Your task to perform on an android device: find snoozed emails in the gmail app Image 0: 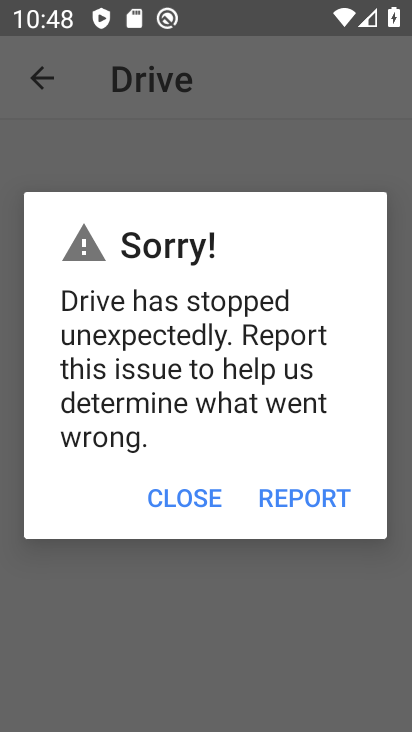
Step 0: press home button
Your task to perform on an android device: find snoozed emails in the gmail app Image 1: 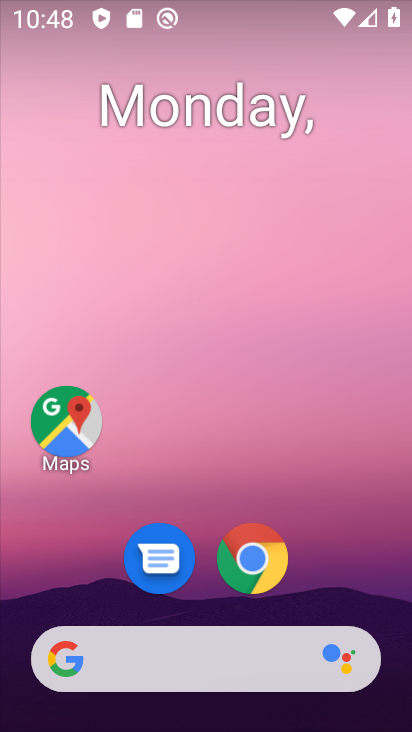
Step 1: drag from (314, 538) to (345, 82)
Your task to perform on an android device: find snoozed emails in the gmail app Image 2: 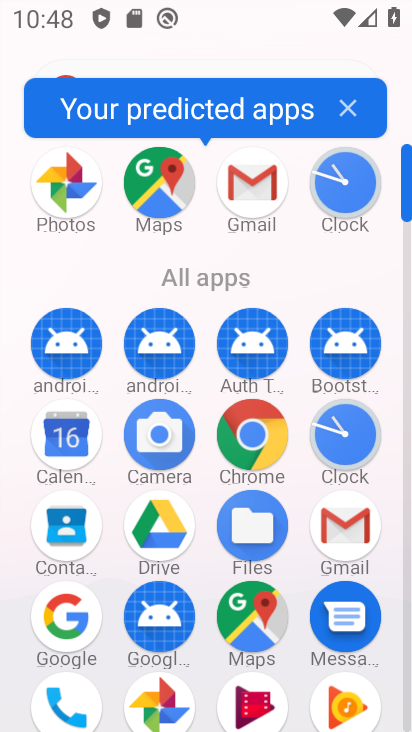
Step 2: click (257, 186)
Your task to perform on an android device: find snoozed emails in the gmail app Image 3: 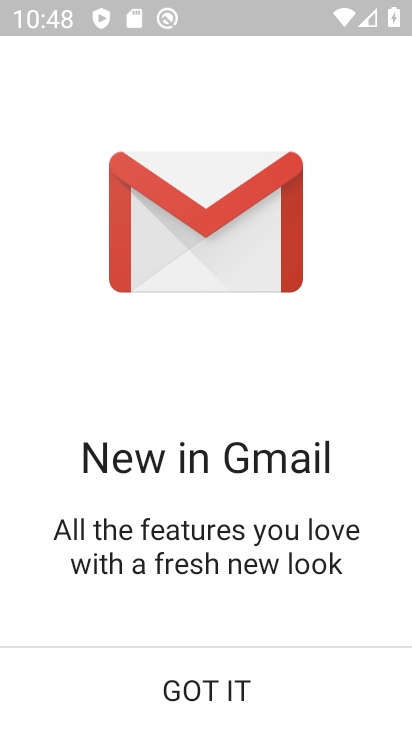
Step 3: click (234, 684)
Your task to perform on an android device: find snoozed emails in the gmail app Image 4: 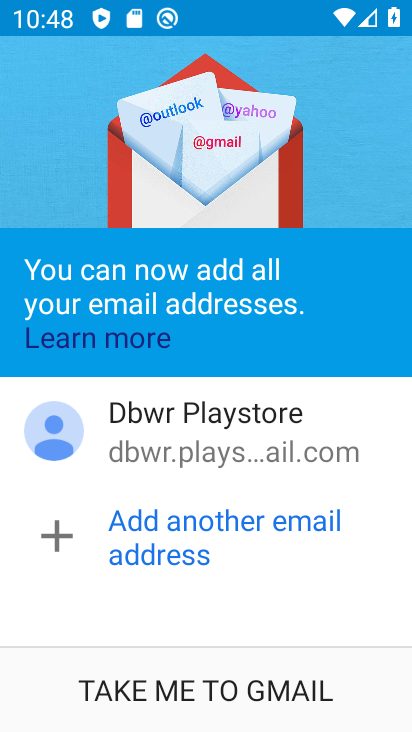
Step 4: click (233, 684)
Your task to perform on an android device: find snoozed emails in the gmail app Image 5: 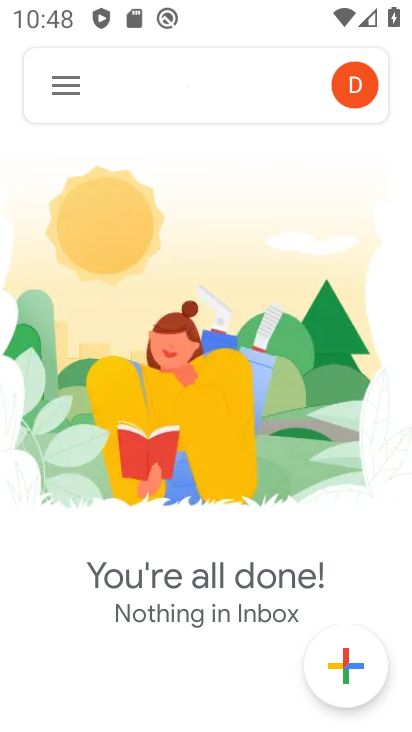
Step 5: click (70, 76)
Your task to perform on an android device: find snoozed emails in the gmail app Image 6: 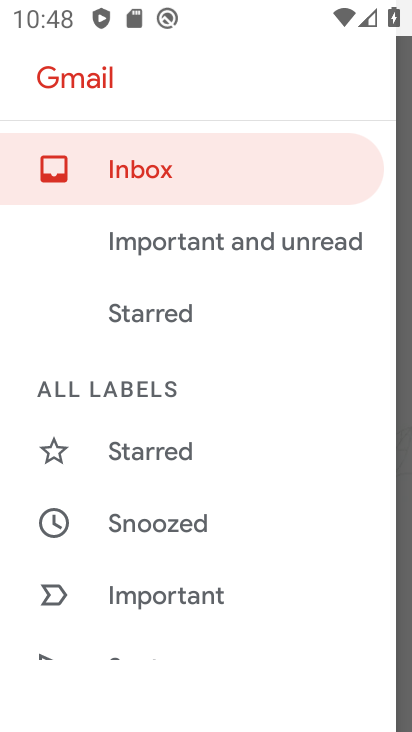
Step 6: click (191, 525)
Your task to perform on an android device: find snoozed emails in the gmail app Image 7: 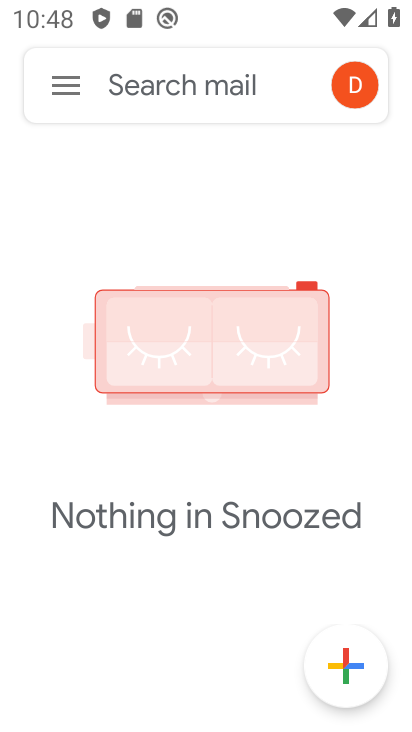
Step 7: task complete